Your task to perform on an android device: Open settings on Google Maps Image 0: 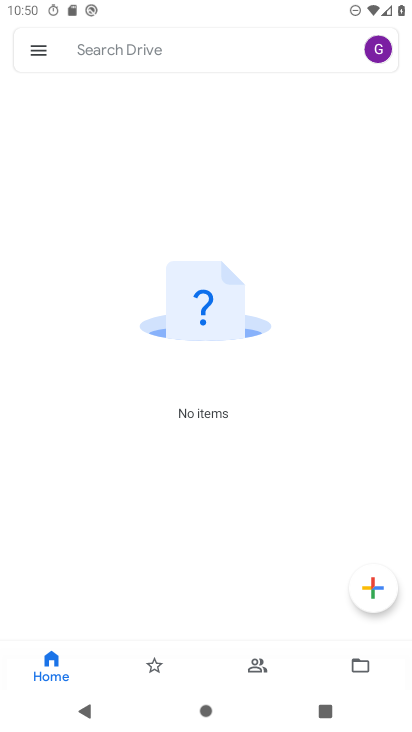
Step 0: press home button
Your task to perform on an android device: Open settings on Google Maps Image 1: 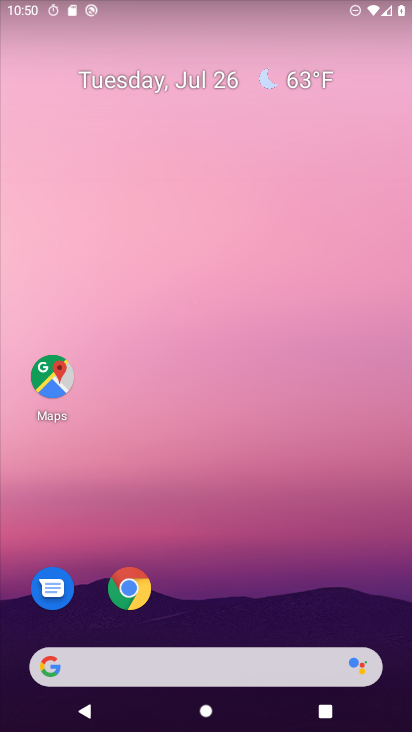
Step 1: click (45, 381)
Your task to perform on an android device: Open settings on Google Maps Image 2: 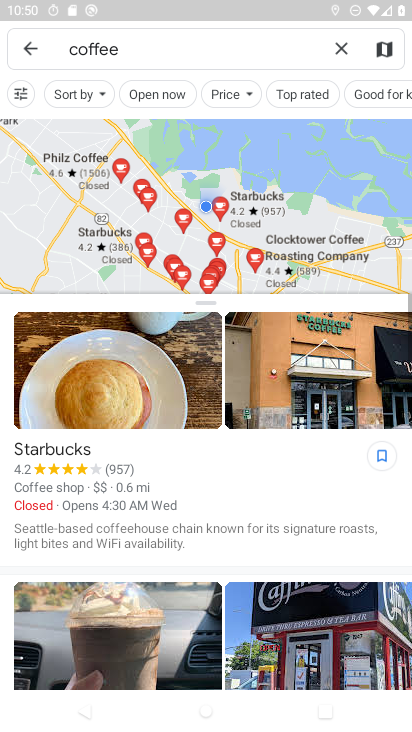
Step 2: click (31, 57)
Your task to perform on an android device: Open settings on Google Maps Image 3: 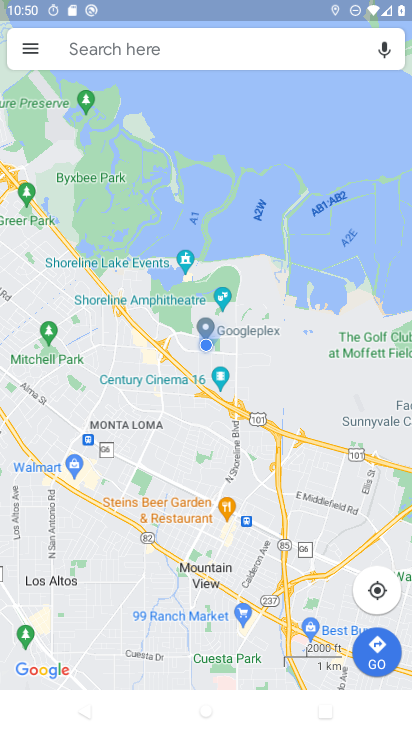
Step 3: click (31, 57)
Your task to perform on an android device: Open settings on Google Maps Image 4: 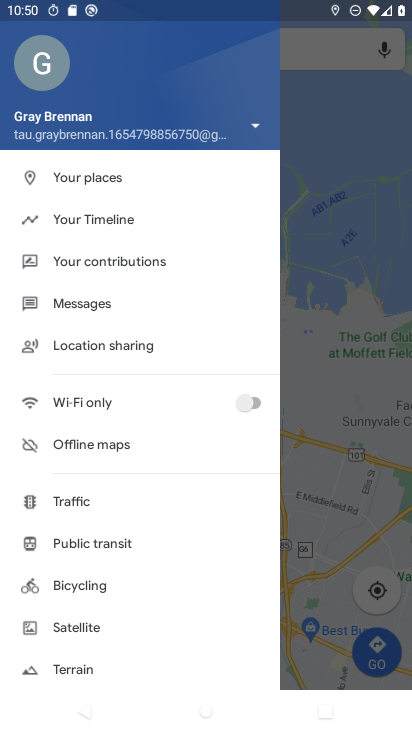
Step 4: drag from (98, 662) to (64, 80)
Your task to perform on an android device: Open settings on Google Maps Image 5: 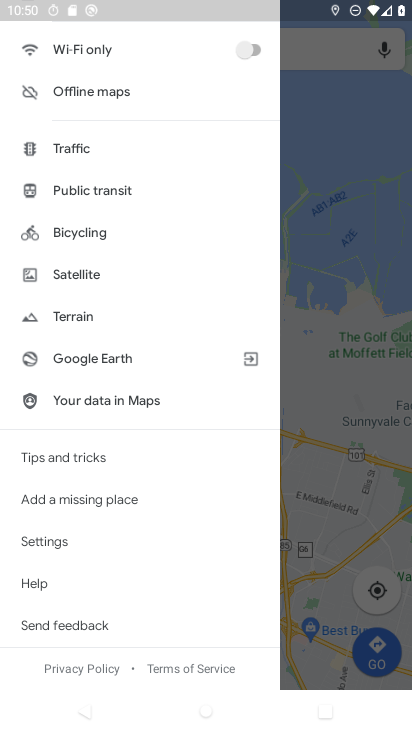
Step 5: click (80, 547)
Your task to perform on an android device: Open settings on Google Maps Image 6: 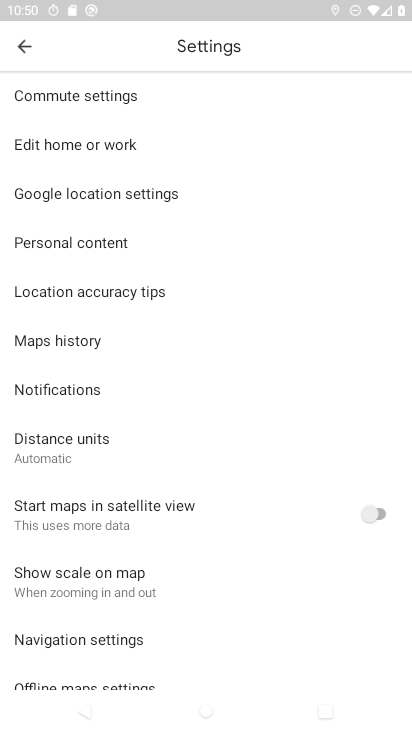
Step 6: task complete